Your task to perform on an android device: Go to display settings Image 0: 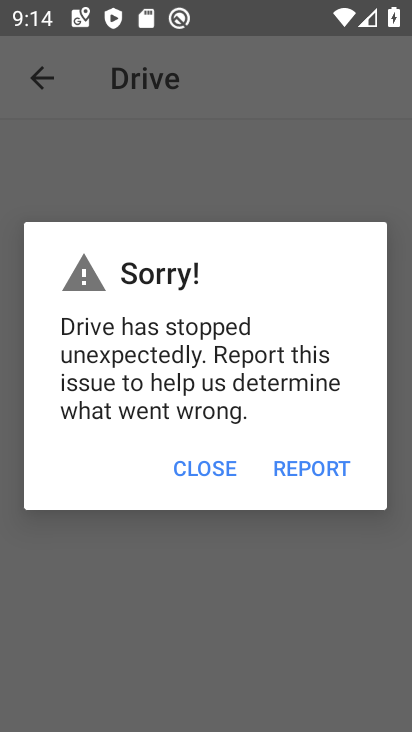
Step 0: click (183, 473)
Your task to perform on an android device: Go to display settings Image 1: 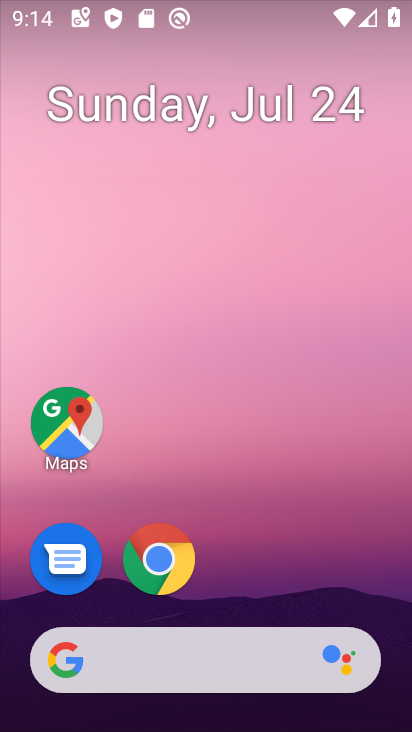
Step 1: drag from (228, 591) to (318, 20)
Your task to perform on an android device: Go to display settings Image 2: 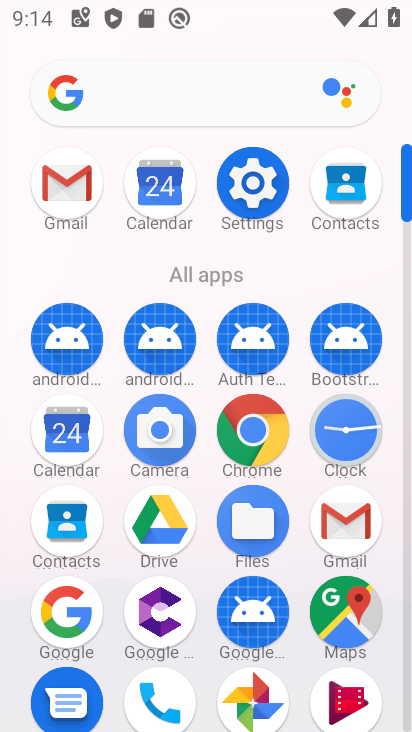
Step 2: click (261, 191)
Your task to perform on an android device: Go to display settings Image 3: 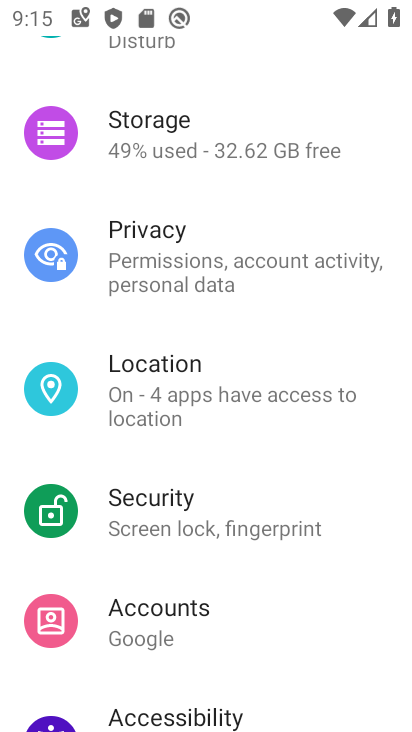
Step 3: drag from (244, 179) to (229, 576)
Your task to perform on an android device: Go to display settings Image 4: 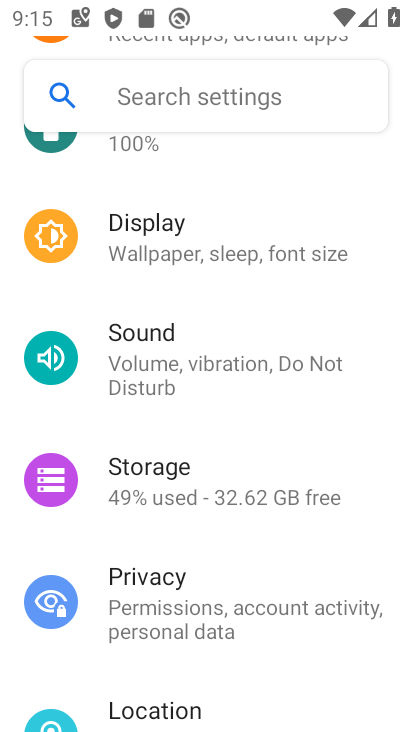
Step 4: click (180, 220)
Your task to perform on an android device: Go to display settings Image 5: 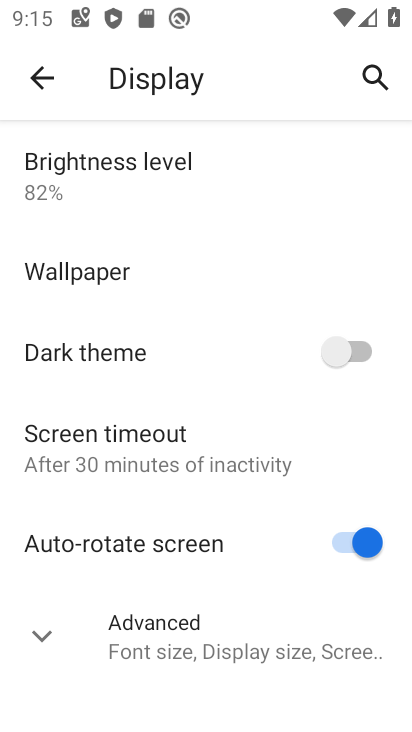
Step 5: task complete